Your task to perform on an android device: Search for seafood restaurants on Google Maps Image 0: 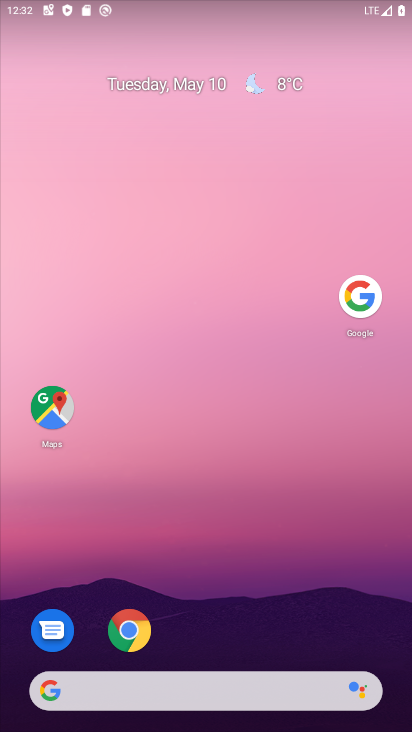
Step 0: click (53, 419)
Your task to perform on an android device: Search for seafood restaurants on Google Maps Image 1: 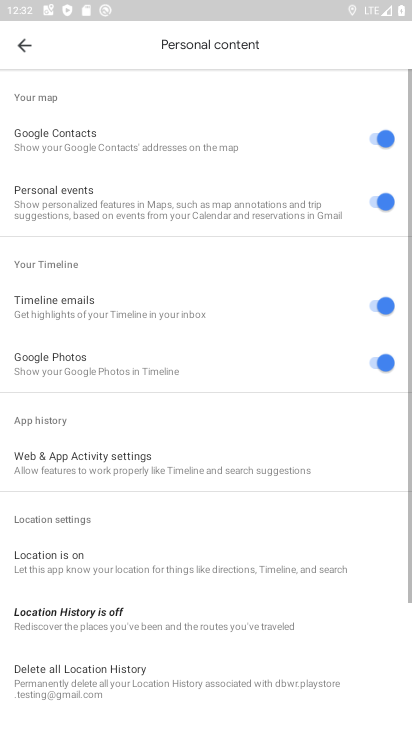
Step 1: click (27, 45)
Your task to perform on an android device: Search for seafood restaurants on Google Maps Image 2: 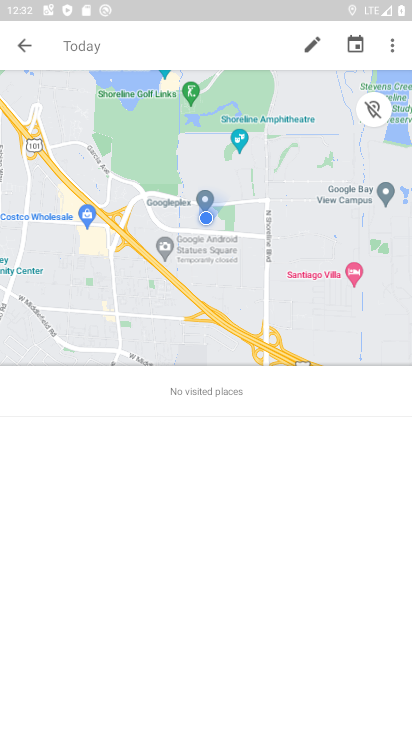
Step 2: click (27, 44)
Your task to perform on an android device: Search for seafood restaurants on Google Maps Image 3: 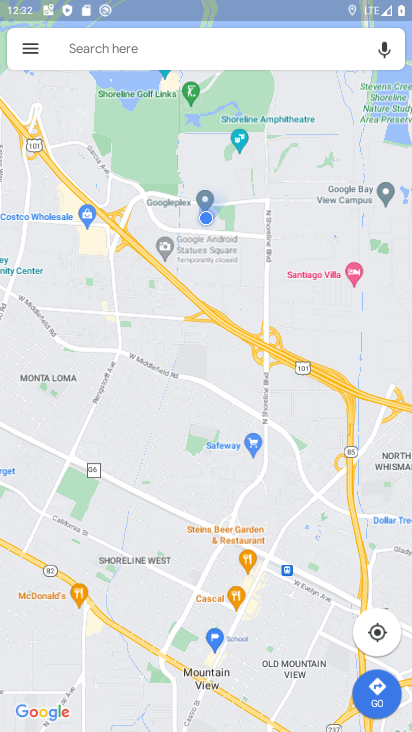
Step 3: click (127, 51)
Your task to perform on an android device: Search for seafood restaurants on Google Maps Image 4: 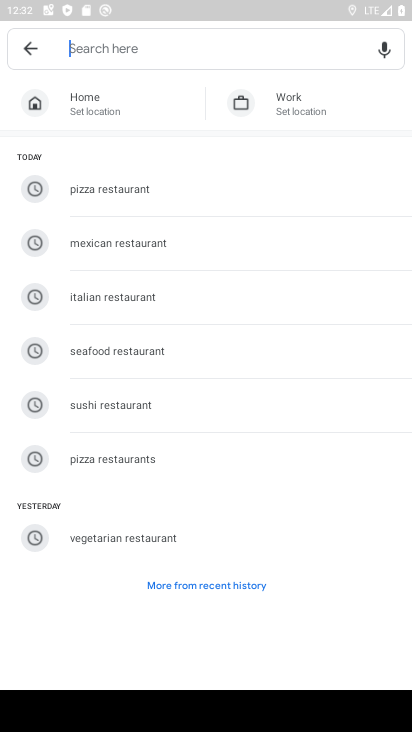
Step 4: click (136, 350)
Your task to perform on an android device: Search for seafood restaurants on Google Maps Image 5: 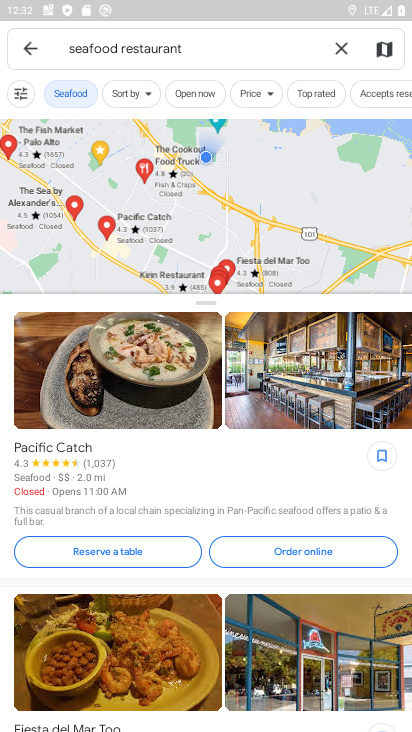
Step 5: task complete